Your task to perform on an android device: Open the phone app and click the voicemail tab. Image 0: 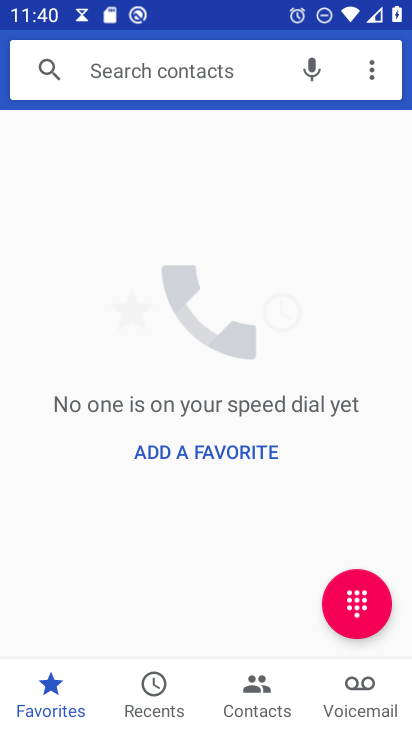
Step 0: click (363, 682)
Your task to perform on an android device: Open the phone app and click the voicemail tab. Image 1: 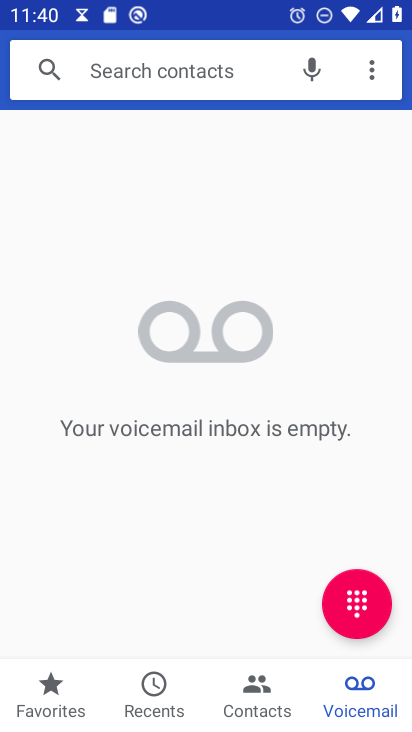
Step 1: task complete